Your task to perform on an android device: turn on showing notifications on the lock screen Image 0: 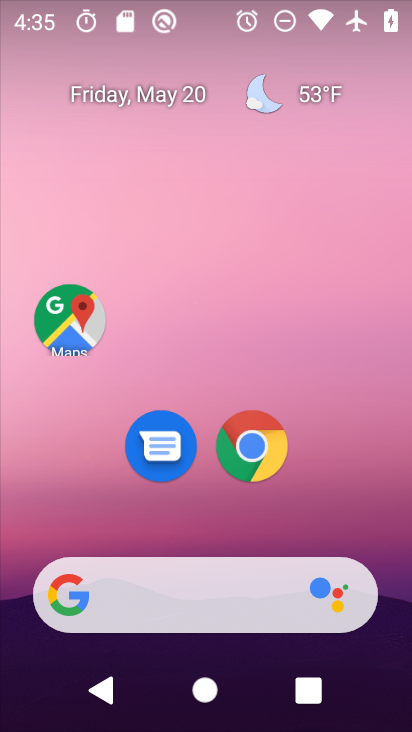
Step 0: drag from (337, 498) to (313, 62)
Your task to perform on an android device: turn on showing notifications on the lock screen Image 1: 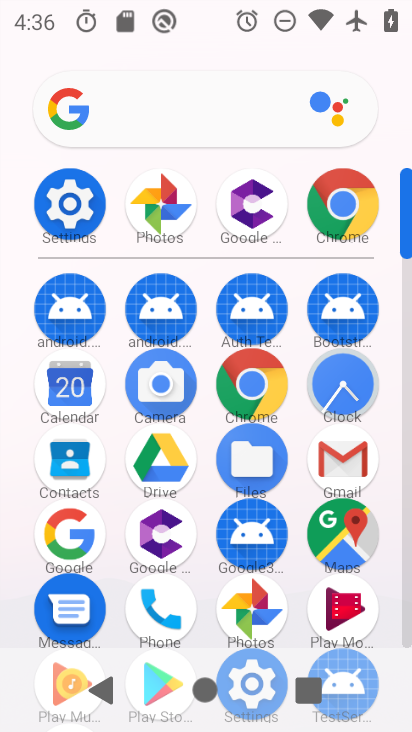
Step 1: click (75, 182)
Your task to perform on an android device: turn on showing notifications on the lock screen Image 2: 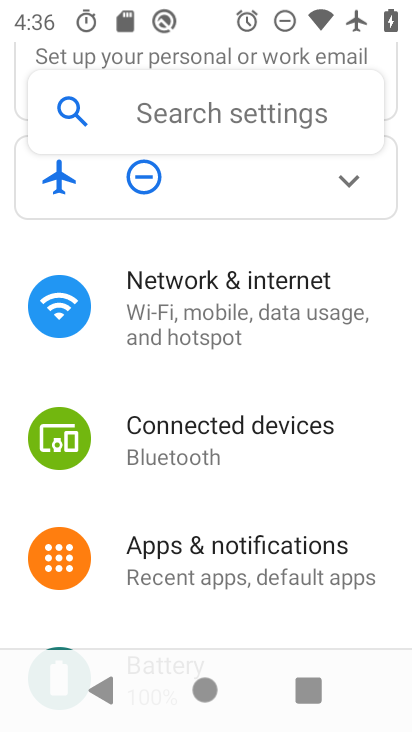
Step 2: drag from (303, 344) to (314, 609)
Your task to perform on an android device: turn on showing notifications on the lock screen Image 3: 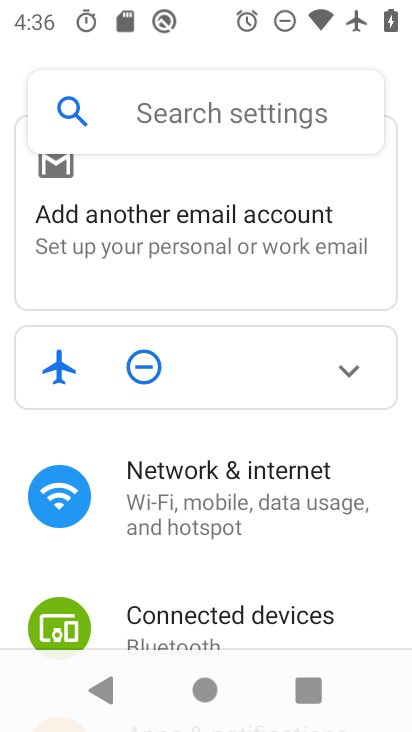
Step 3: drag from (311, 601) to (276, 291)
Your task to perform on an android device: turn on showing notifications on the lock screen Image 4: 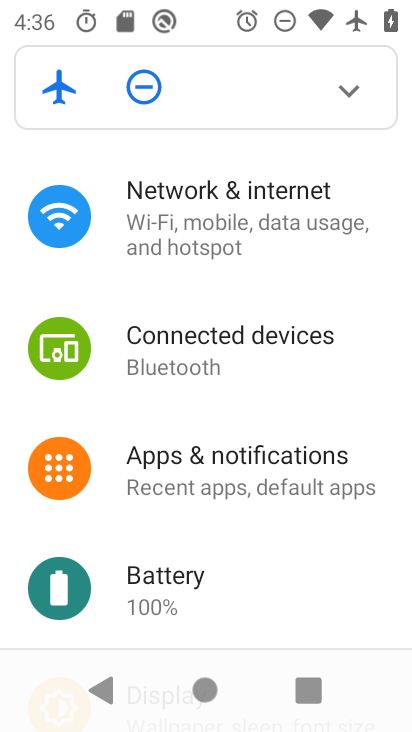
Step 4: click (311, 481)
Your task to perform on an android device: turn on showing notifications on the lock screen Image 5: 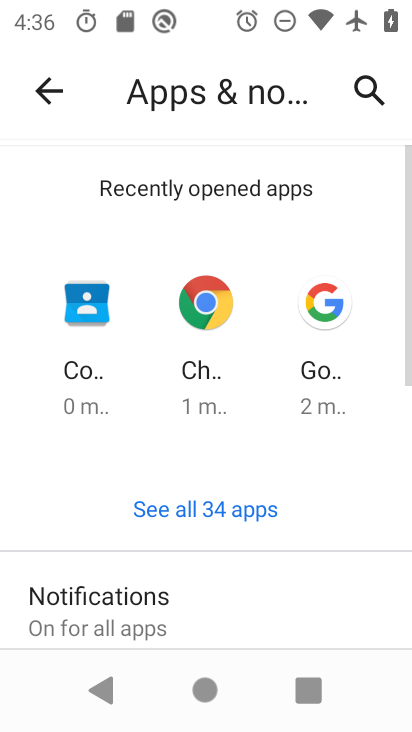
Step 5: drag from (214, 629) to (162, 245)
Your task to perform on an android device: turn on showing notifications on the lock screen Image 6: 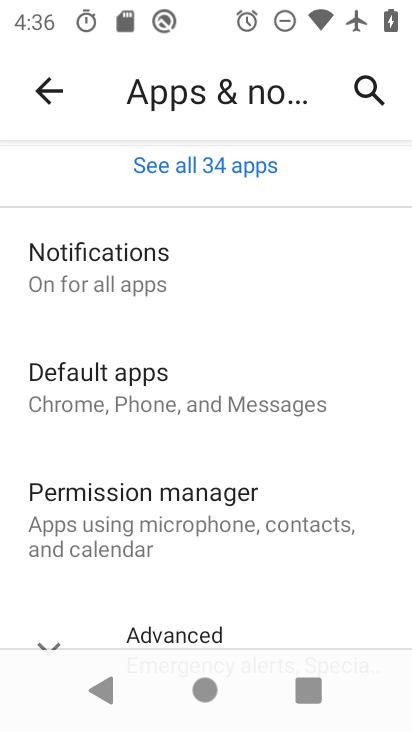
Step 6: click (130, 275)
Your task to perform on an android device: turn on showing notifications on the lock screen Image 7: 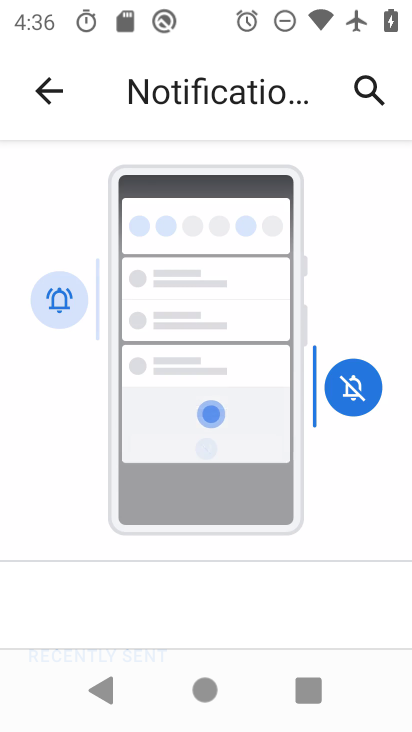
Step 7: drag from (201, 605) to (177, 224)
Your task to perform on an android device: turn on showing notifications on the lock screen Image 8: 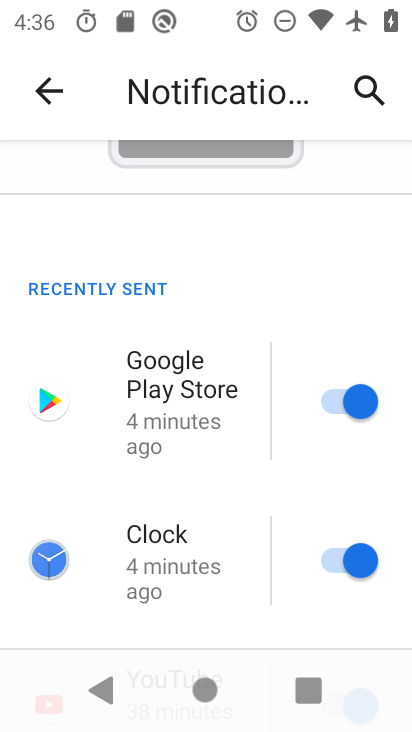
Step 8: drag from (194, 596) to (167, 117)
Your task to perform on an android device: turn on showing notifications on the lock screen Image 9: 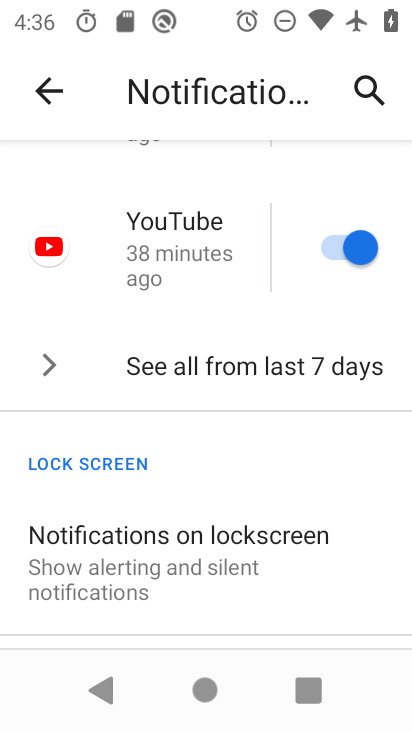
Step 9: click (125, 579)
Your task to perform on an android device: turn on showing notifications on the lock screen Image 10: 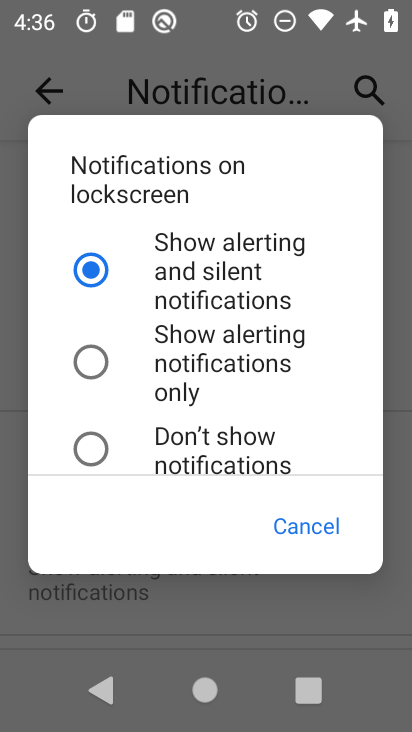
Step 10: click (89, 360)
Your task to perform on an android device: turn on showing notifications on the lock screen Image 11: 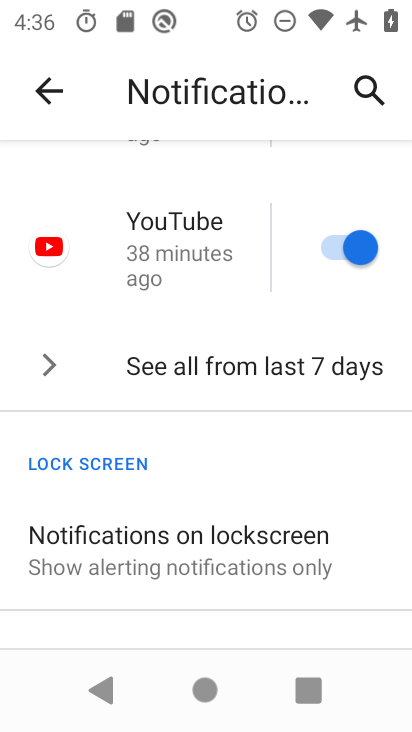
Step 11: task complete